Your task to perform on an android device: all mails in gmail Image 0: 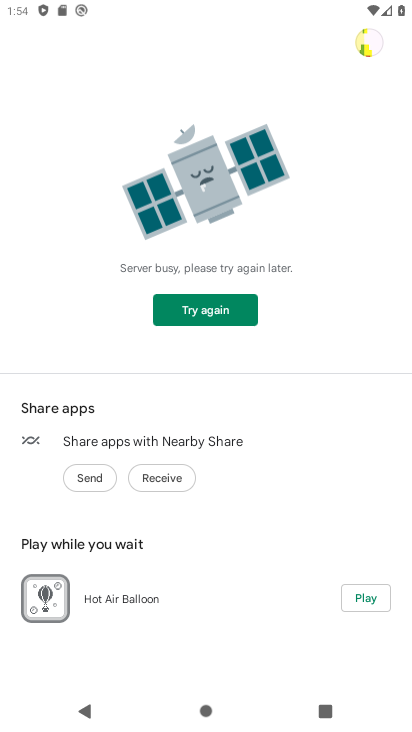
Step 0: press home button
Your task to perform on an android device: all mails in gmail Image 1: 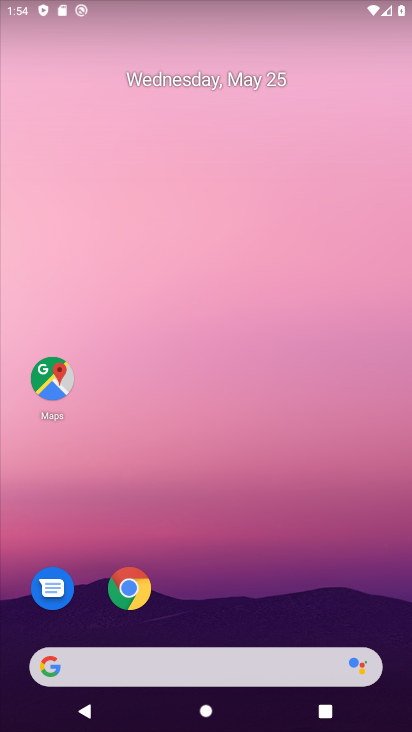
Step 1: drag from (190, 620) to (271, 137)
Your task to perform on an android device: all mails in gmail Image 2: 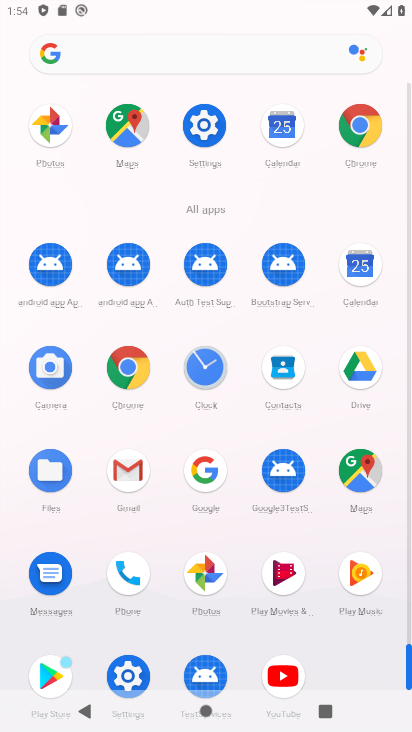
Step 2: click (121, 482)
Your task to perform on an android device: all mails in gmail Image 3: 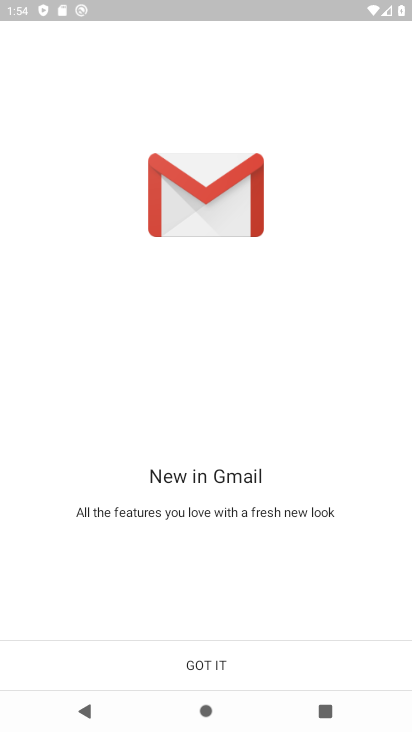
Step 3: click (213, 650)
Your task to perform on an android device: all mails in gmail Image 4: 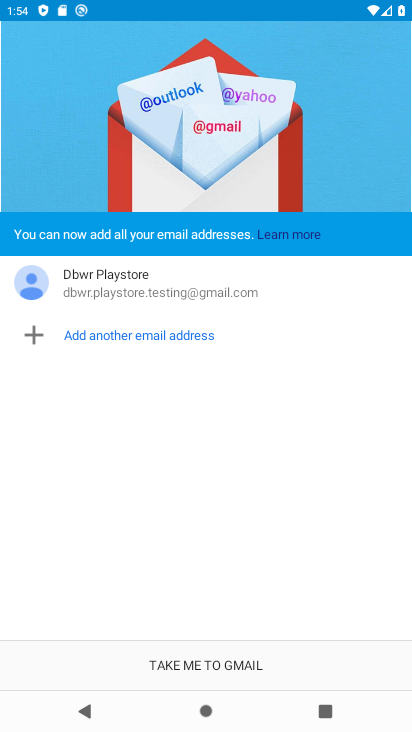
Step 4: click (213, 672)
Your task to perform on an android device: all mails in gmail Image 5: 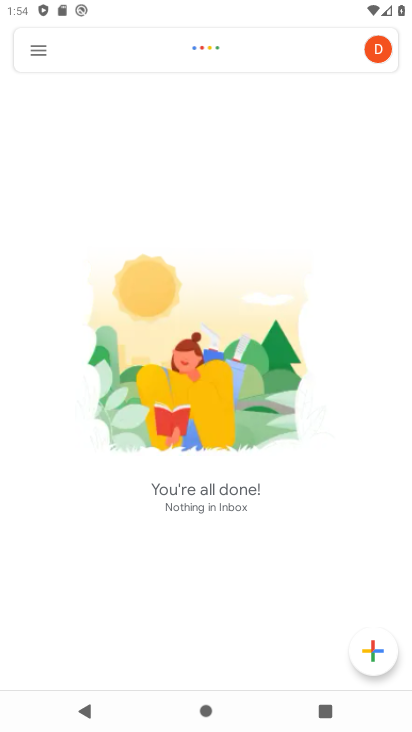
Step 5: click (42, 42)
Your task to perform on an android device: all mails in gmail Image 6: 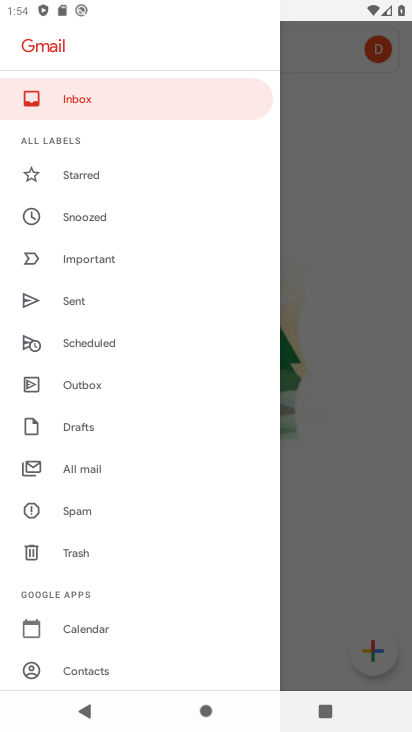
Step 6: click (99, 467)
Your task to perform on an android device: all mails in gmail Image 7: 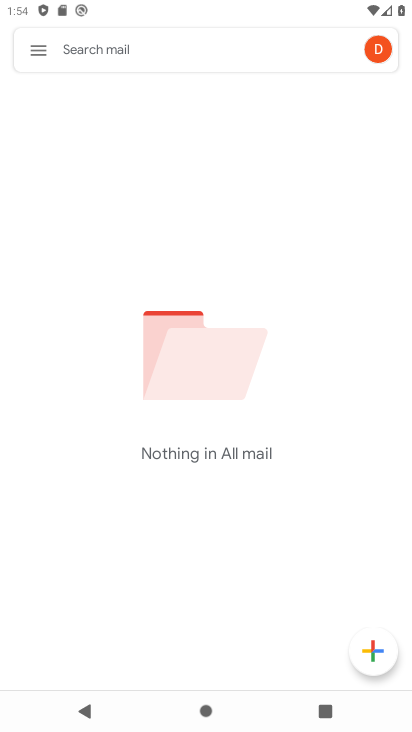
Step 7: task complete